Your task to perform on an android device: Open calendar and show me the second week of next month Image 0: 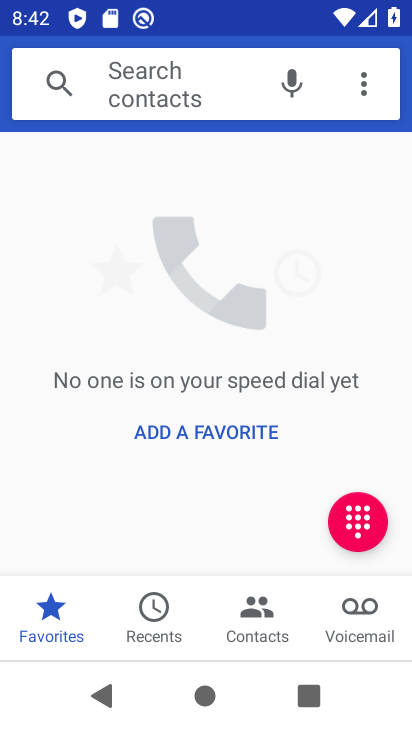
Step 0: press back button
Your task to perform on an android device: Open calendar and show me the second week of next month Image 1: 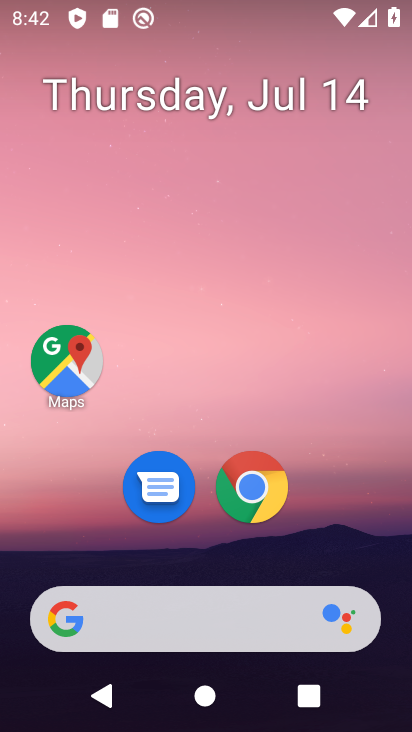
Step 1: drag from (158, 551) to (284, 11)
Your task to perform on an android device: Open calendar and show me the second week of next month Image 2: 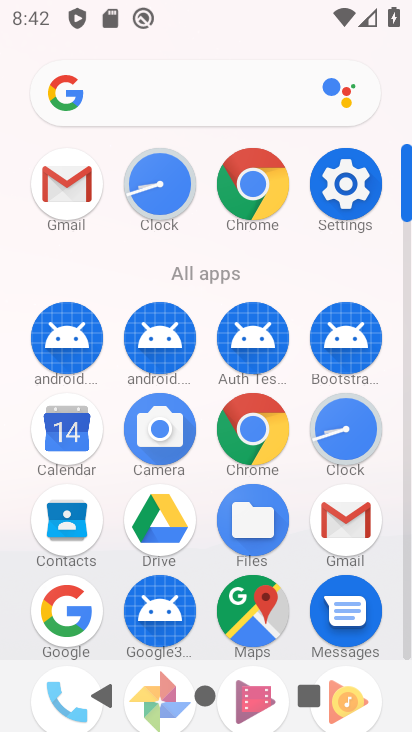
Step 2: click (67, 432)
Your task to perform on an android device: Open calendar and show me the second week of next month Image 3: 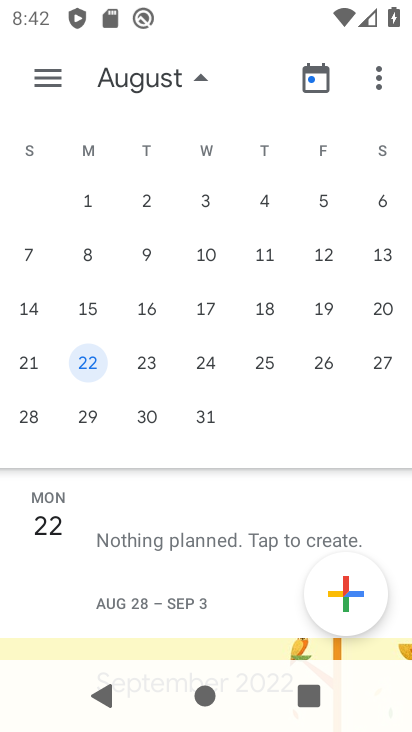
Step 3: drag from (392, 297) to (15, 266)
Your task to perform on an android device: Open calendar and show me the second week of next month Image 4: 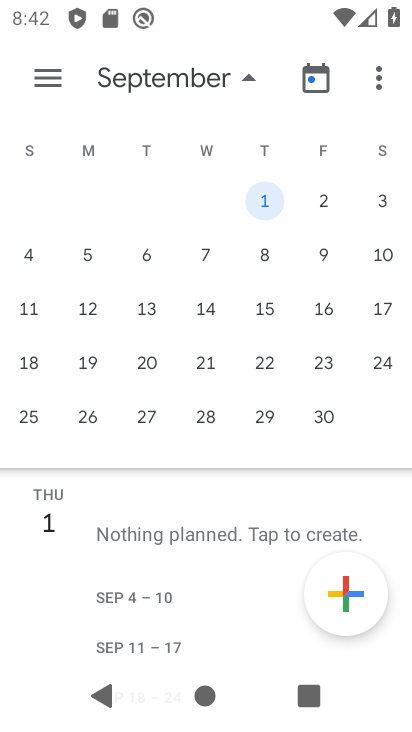
Step 4: drag from (14, 265) to (382, 278)
Your task to perform on an android device: Open calendar and show me the second week of next month Image 5: 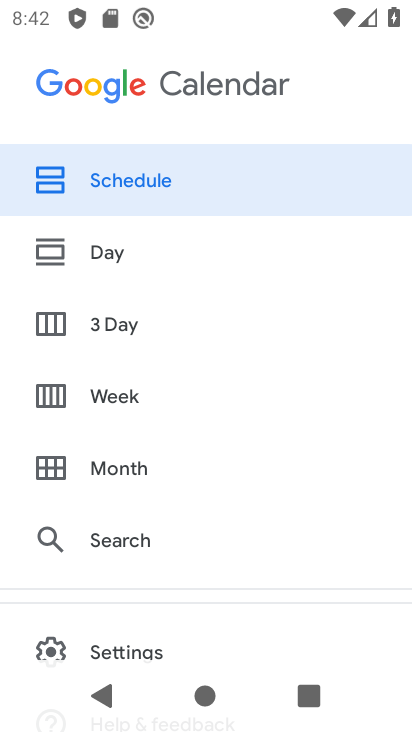
Step 5: drag from (403, 295) to (151, 312)
Your task to perform on an android device: Open calendar and show me the second week of next month Image 6: 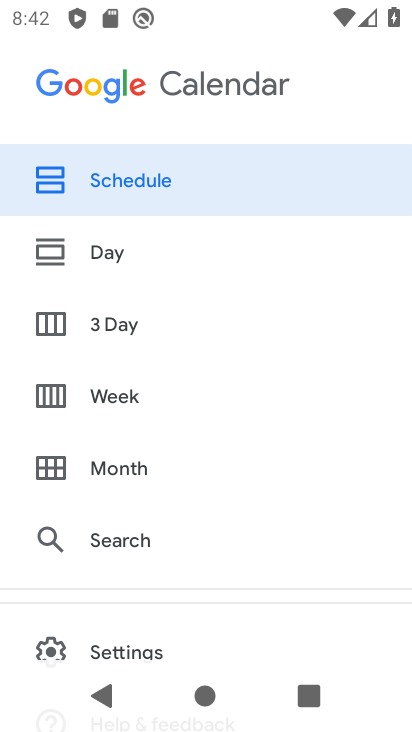
Step 6: drag from (307, 327) to (0, 473)
Your task to perform on an android device: Open calendar and show me the second week of next month Image 7: 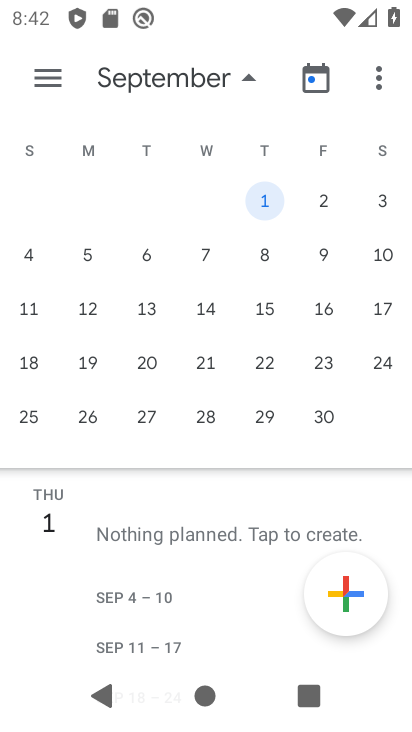
Step 7: drag from (53, 293) to (380, 313)
Your task to perform on an android device: Open calendar and show me the second week of next month Image 8: 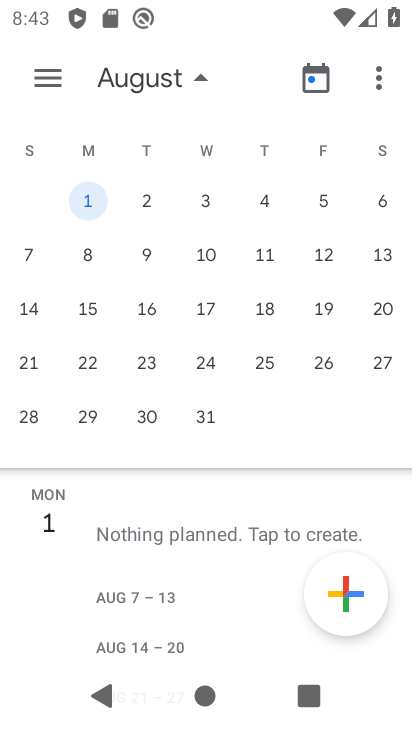
Step 8: click (91, 249)
Your task to perform on an android device: Open calendar and show me the second week of next month Image 9: 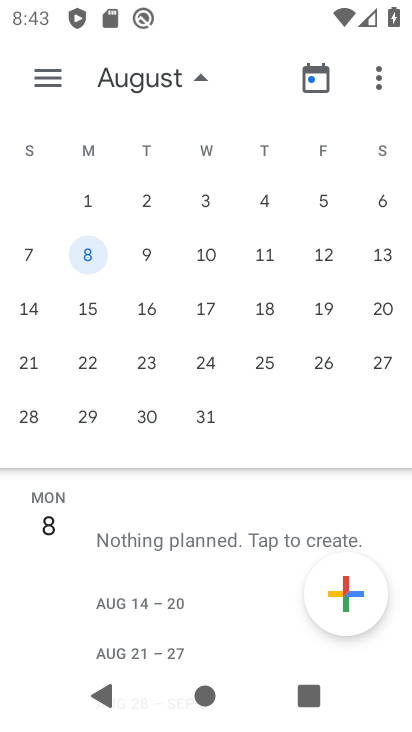
Step 9: task complete